Your task to perform on an android device: empty trash in the gmail app Image 0: 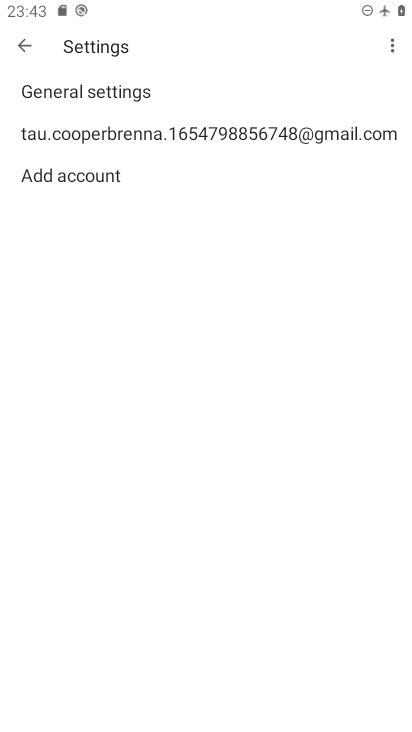
Step 0: press home button
Your task to perform on an android device: empty trash in the gmail app Image 1: 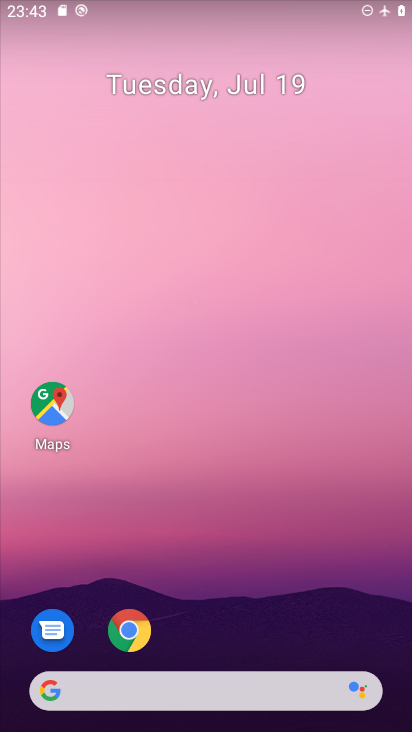
Step 1: drag from (200, 616) to (169, 165)
Your task to perform on an android device: empty trash in the gmail app Image 2: 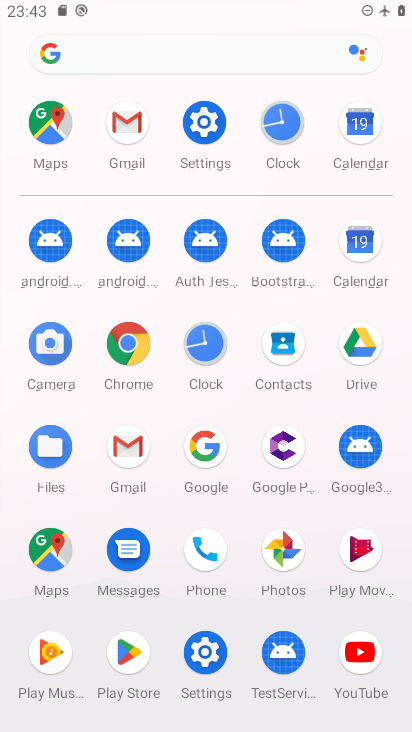
Step 2: click (115, 123)
Your task to perform on an android device: empty trash in the gmail app Image 3: 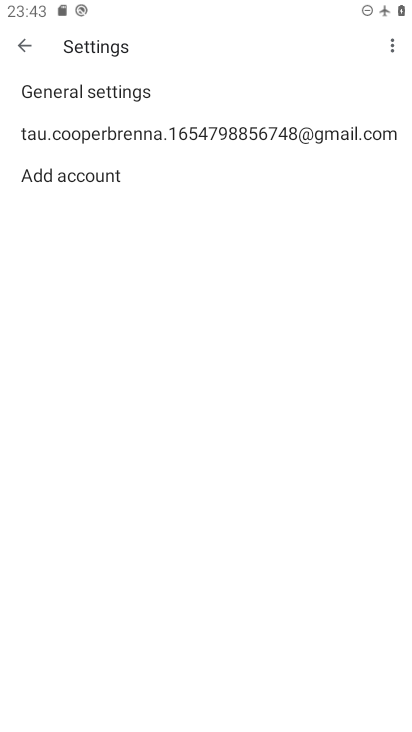
Step 3: click (18, 48)
Your task to perform on an android device: empty trash in the gmail app Image 4: 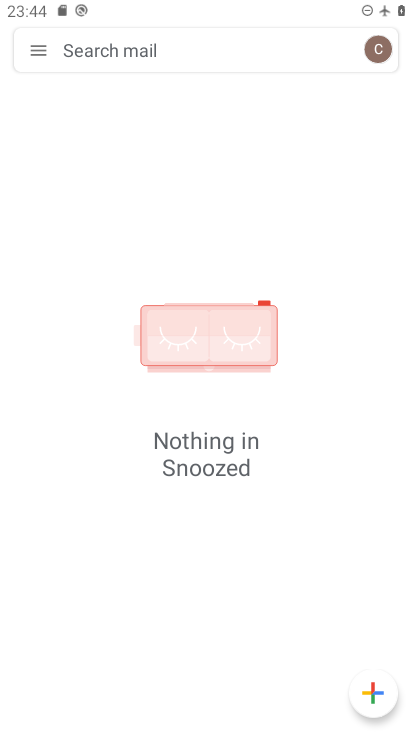
Step 4: click (41, 53)
Your task to perform on an android device: empty trash in the gmail app Image 5: 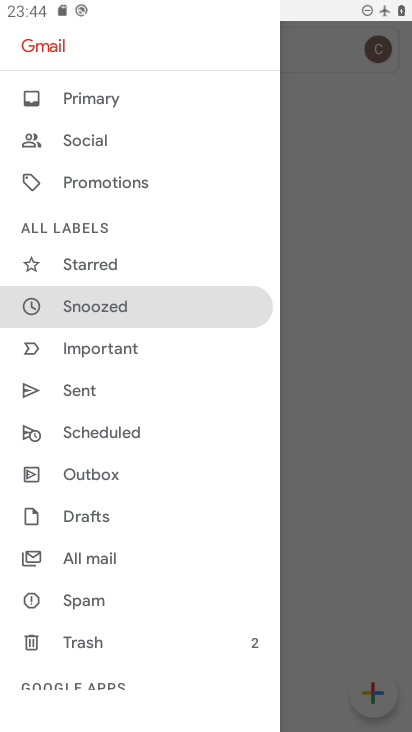
Step 5: click (121, 635)
Your task to perform on an android device: empty trash in the gmail app Image 6: 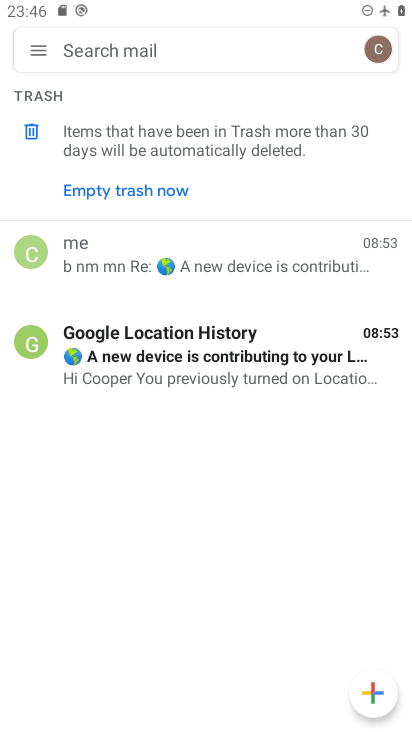
Step 6: click (93, 193)
Your task to perform on an android device: empty trash in the gmail app Image 7: 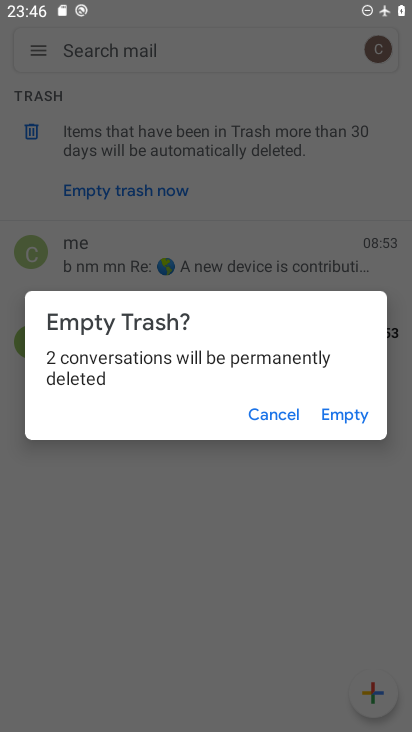
Step 7: click (332, 404)
Your task to perform on an android device: empty trash in the gmail app Image 8: 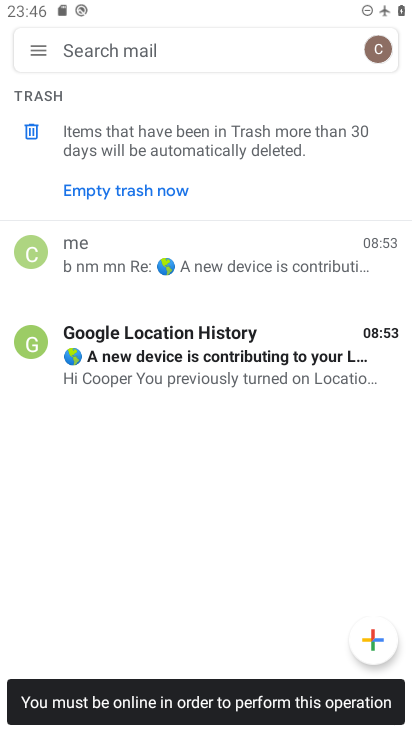
Step 8: task complete